Your task to perform on an android device: make emails show in primary in the gmail app Image 0: 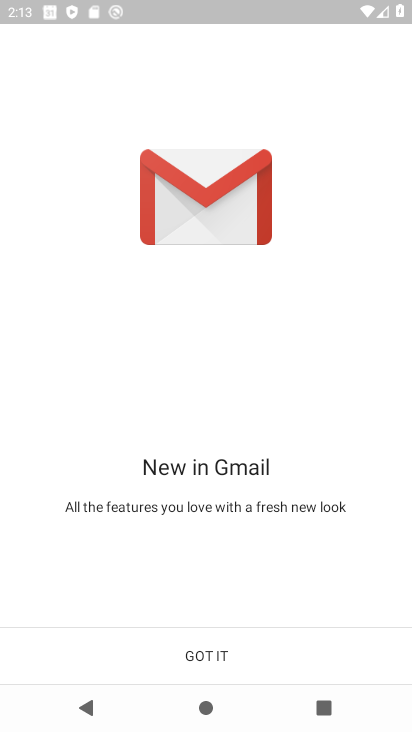
Step 0: click (202, 652)
Your task to perform on an android device: make emails show in primary in the gmail app Image 1: 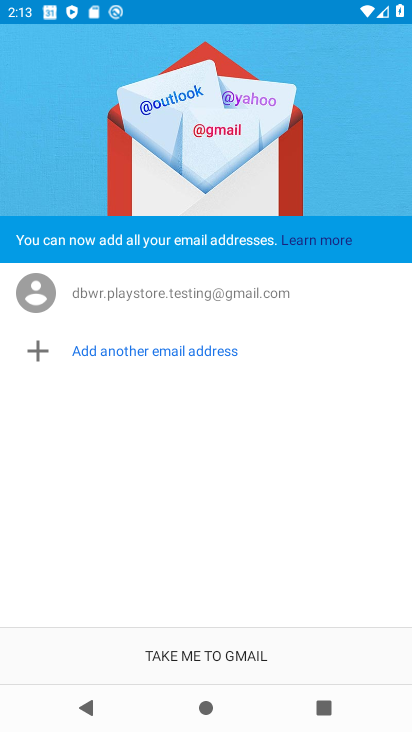
Step 1: click (203, 652)
Your task to perform on an android device: make emails show in primary in the gmail app Image 2: 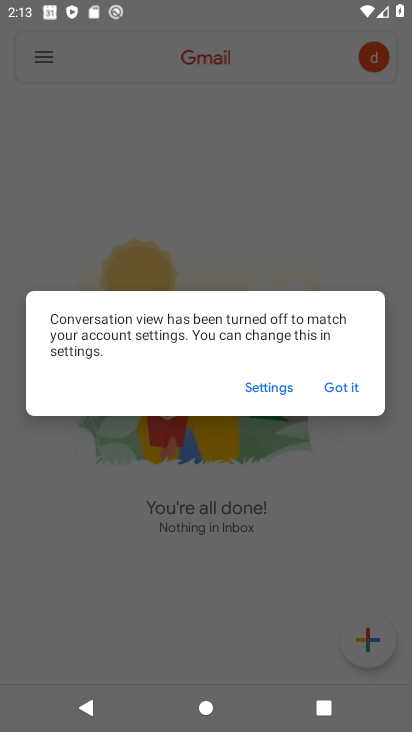
Step 2: click (340, 380)
Your task to perform on an android device: make emails show in primary in the gmail app Image 3: 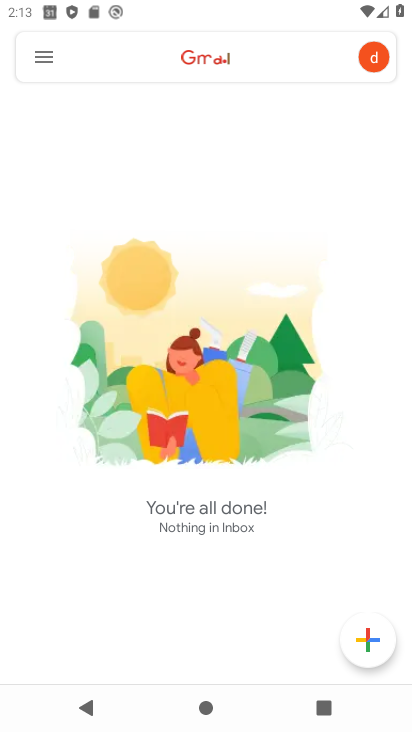
Step 3: click (41, 46)
Your task to perform on an android device: make emails show in primary in the gmail app Image 4: 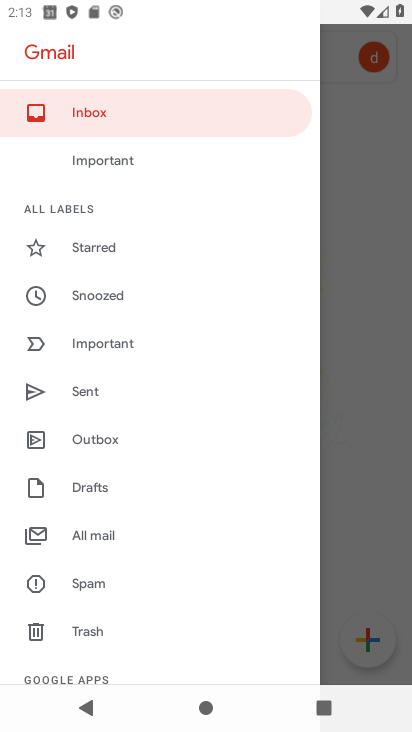
Step 4: drag from (123, 135) to (147, 571)
Your task to perform on an android device: make emails show in primary in the gmail app Image 5: 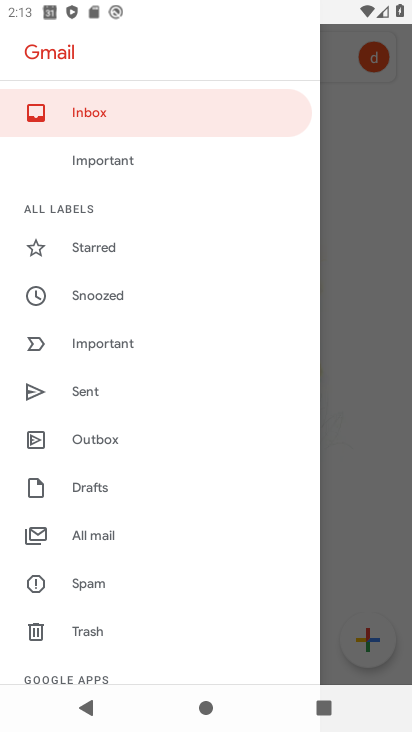
Step 5: drag from (97, 575) to (112, 656)
Your task to perform on an android device: make emails show in primary in the gmail app Image 6: 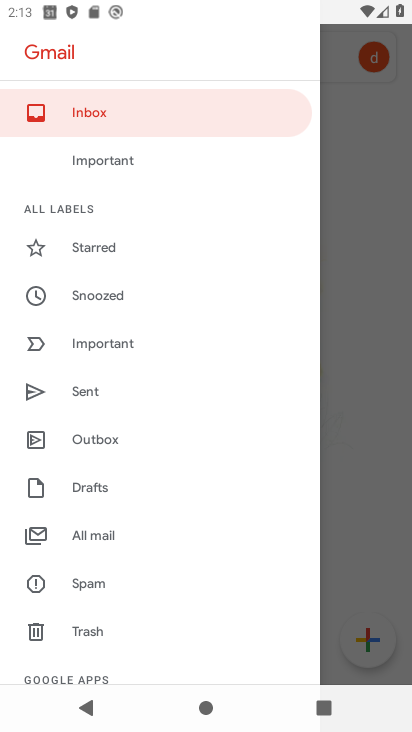
Step 6: click (58, 205)
Your task to perform on an android device: make emails show in primary in the gmail app Image 7: 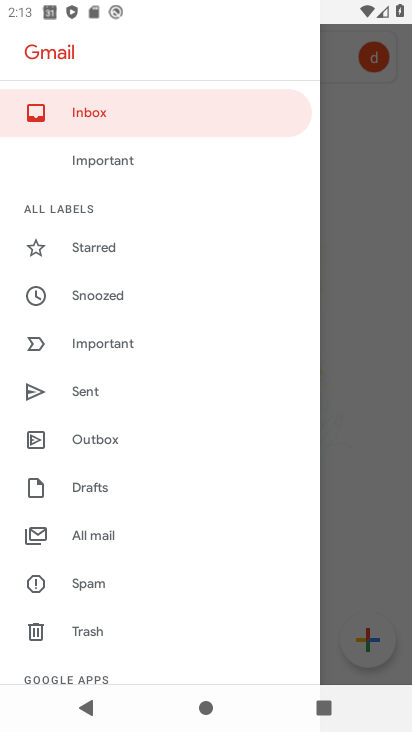
Step 7: task complete